Your task to perform on an android device: Open settings on Google Maps Image 0: 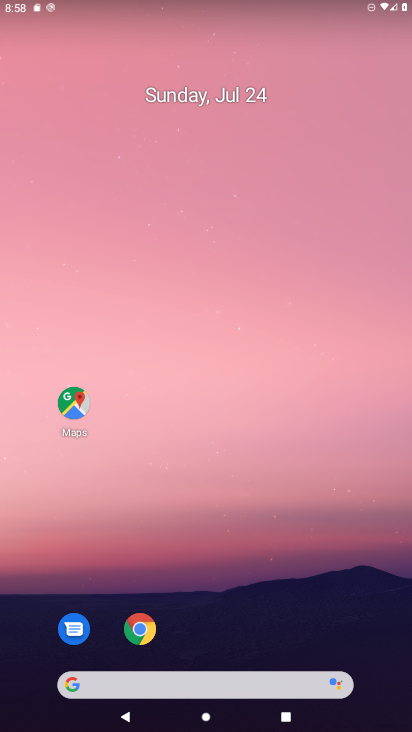
Step 0: drag from (327, 582) to (108, 79)
Your task to perform on an android device: Open settings on Google Maps Image 1: 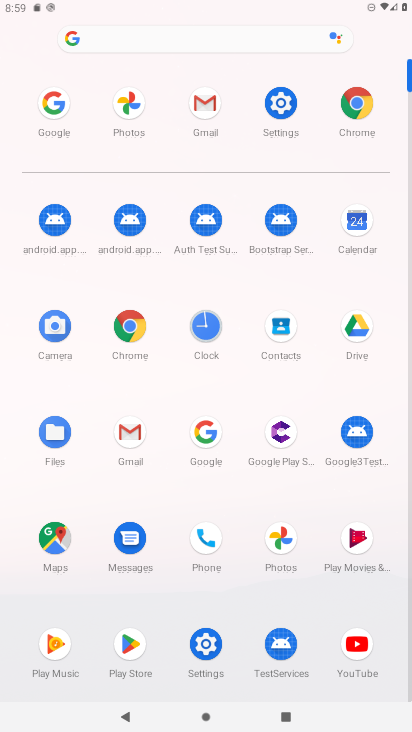
Step 1: click (53, 540)
Your task to perform on an android device: Open settings on Google Maps Image 2: 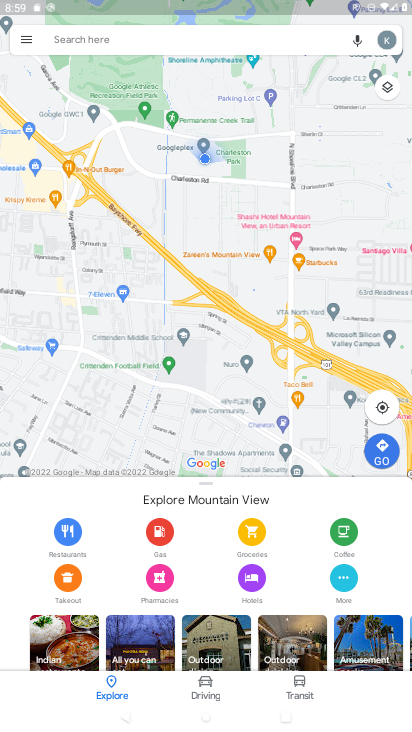
Step 2: click (20, 37)
Your task to perform on an android device: Open settings on Google Maps Image 3: 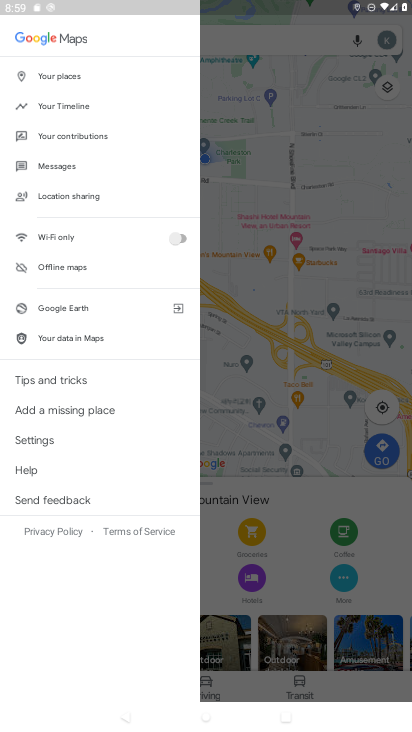
Step 3: click (41, 440)
Your task to perform on an android device: Open settings on Google Maps Image 4: 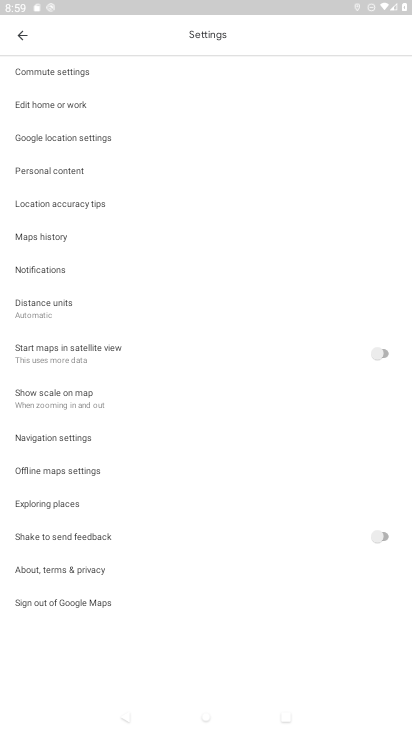
Step 4: task complete